Your task to perform on an android device: refresh tabs in the chrome app Image 0: 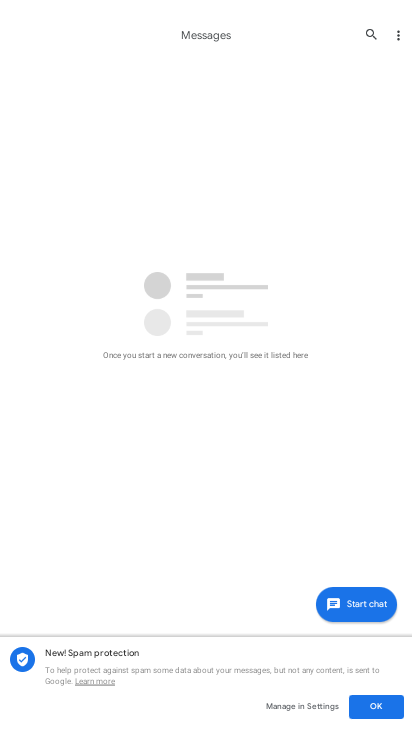
Step 0: press home button
Your task to perform on an android device: refresh tabs in the chrome app Image 1: 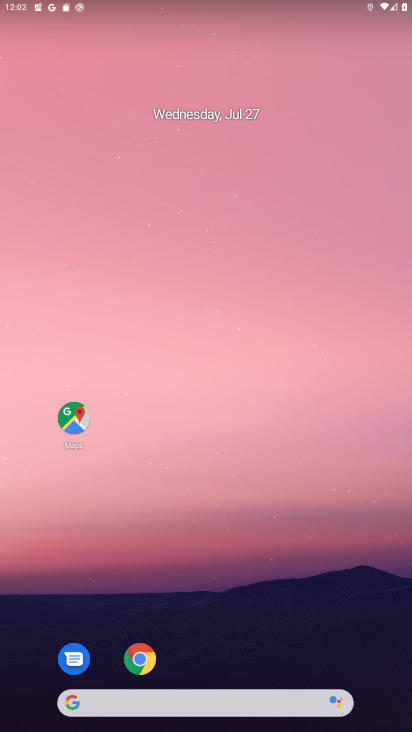
Step 1: drag from (279, 682) to (331, 38)
Your task to perform on an android device: refresh tabs in the chrome app Image 2: 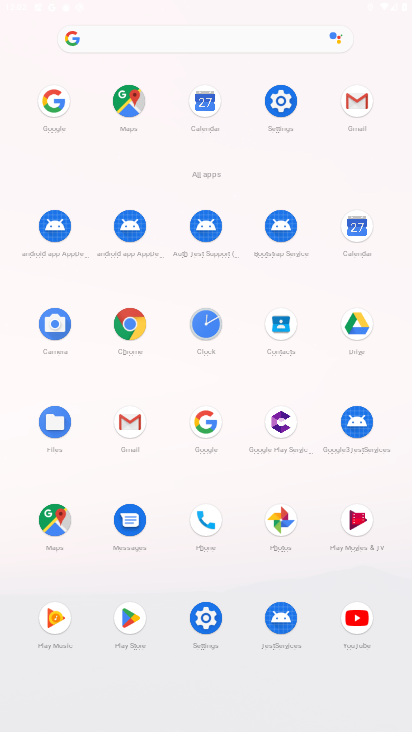
Step 2: click (122, 323)
Your task to perform on an android device: refresh tabs in the chrome app Image 3: 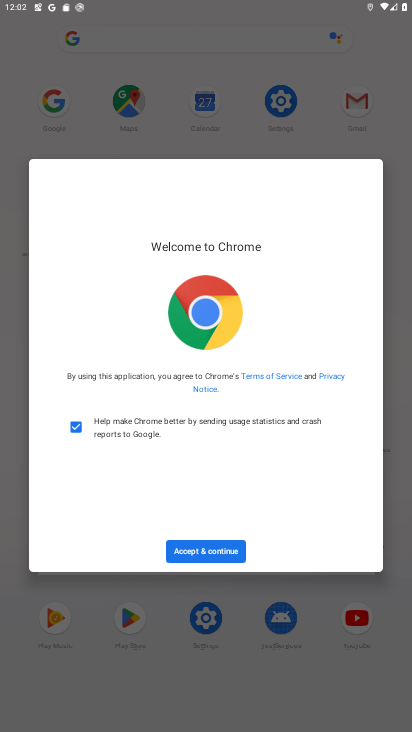
Step 3: click (221, 546)
Your task to perform on an android device: refresh tabs in the chrome app Image 4: 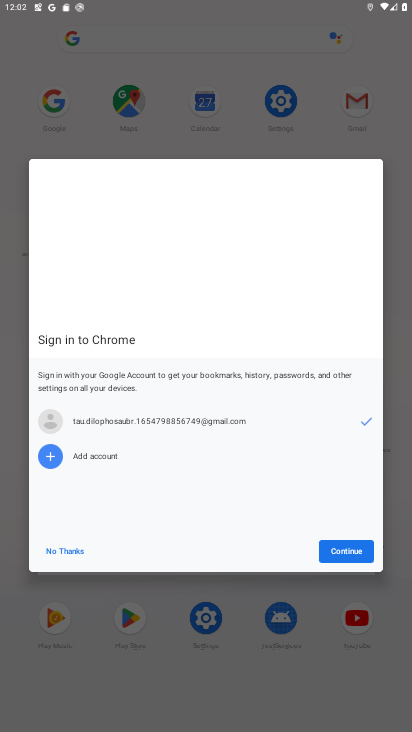
Step 4: click (58, 549)
Your task to perform on an android device: refresh tabs in the chrome app Image 5: 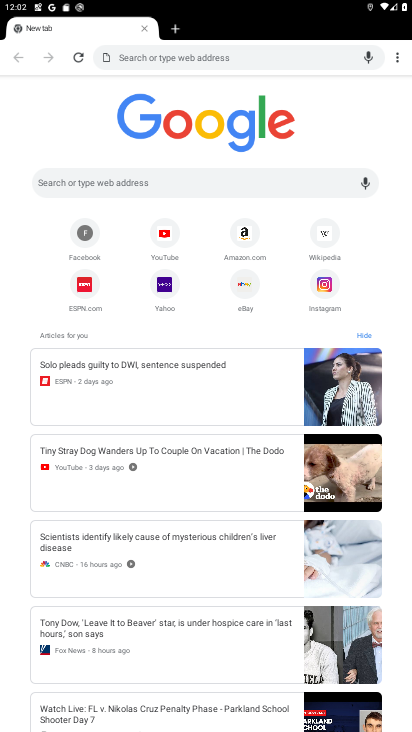
Step 5: drag from (399, 59) to (74, 58)
Your task to perform on an android device: refresh tabs in the chrome app Image 6: 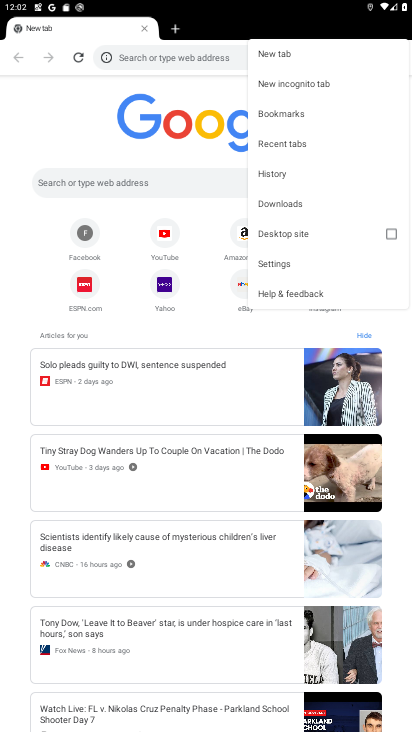
Step 6: click (74, 58)
Your task to perform on an android device: refresh tabs in the chrome app Image 7: 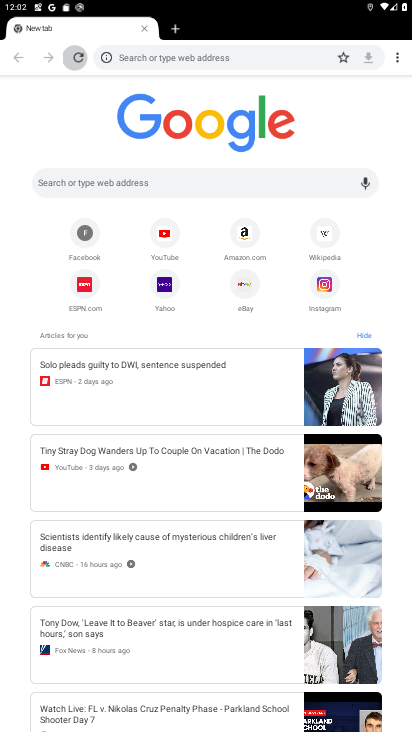
Step 7: click (74, 57)
Your task to perform on an android device: refresh tabs in the chrome app Image 8: 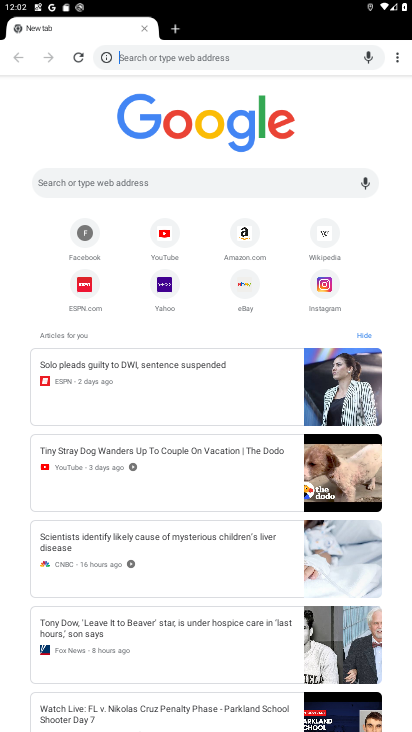
Step 8: task complete